Your task to perform on an android device: What's on my calendar today? Image 0: 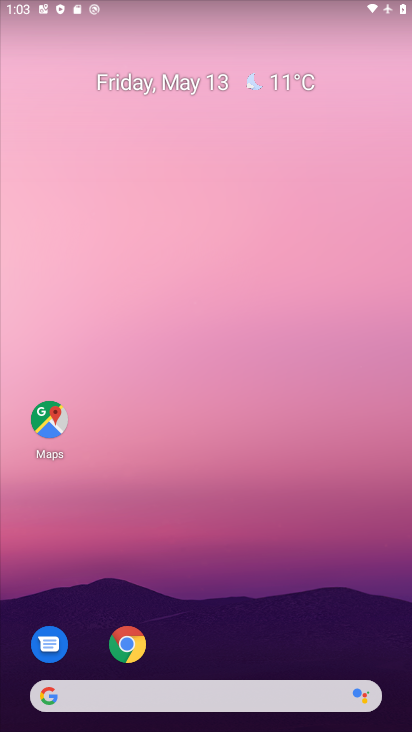
Step 0: drag from (213, 724) to (223, 178)
Your task to perform on an android device: What's on my calendar today? Image 1: 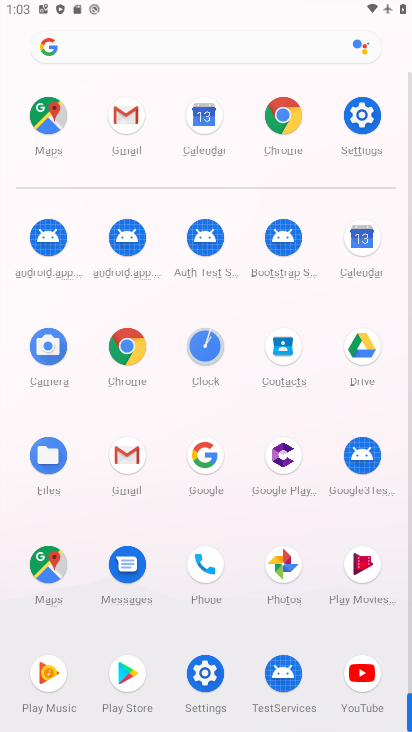
Step 1: click (358, 243)
Your task to perform on an android device: What's on my calendar today? Image 2: 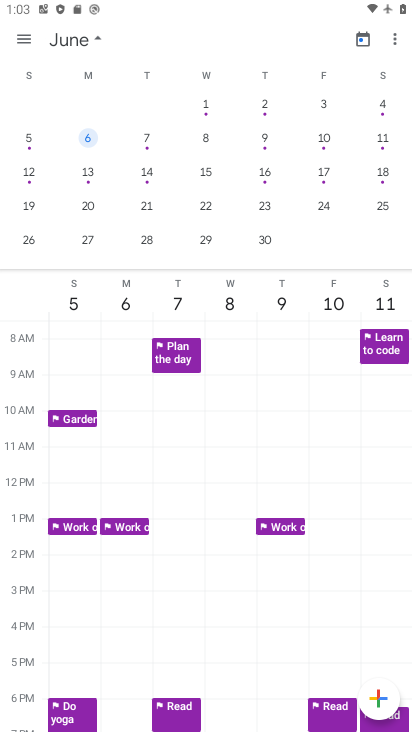
Step 2: drag from (56, 171) to (356, 165)
Your task to perform on an android device: What's on my calendar today? Image 3: 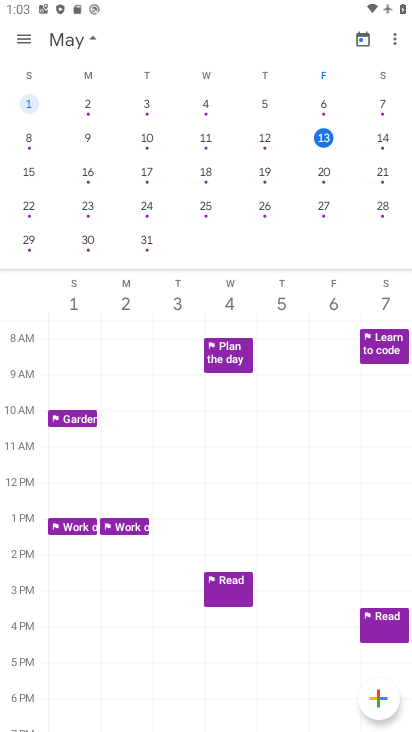
Step 3: drag from (82, 150) to (411, 166)
Your task to perform on an android device: What's on my calendar today? Image 4: 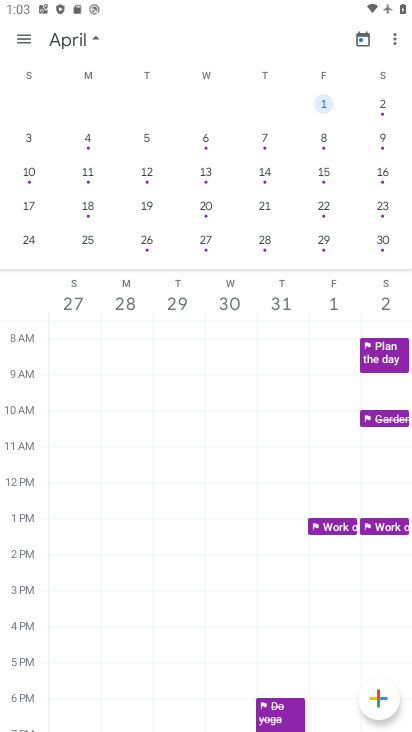
Step 4: drag from (368, 162) to (2, 150)
Your task to perform on an android device: What's on my calendar today? Image 5: 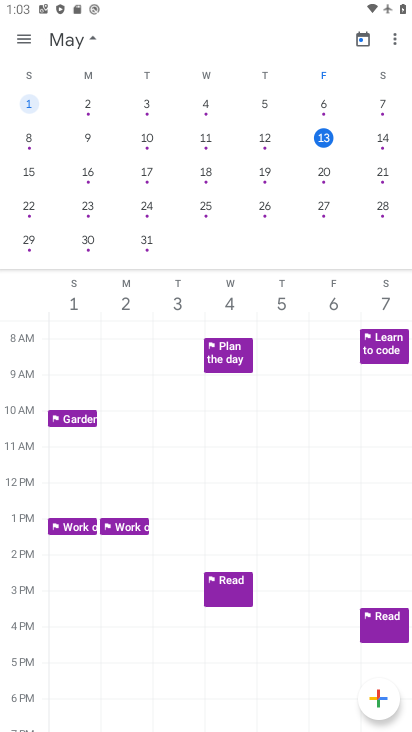
Step 5: click (324, 139)
Your task to perform on an android device: What's on my calendar today? Image 6: 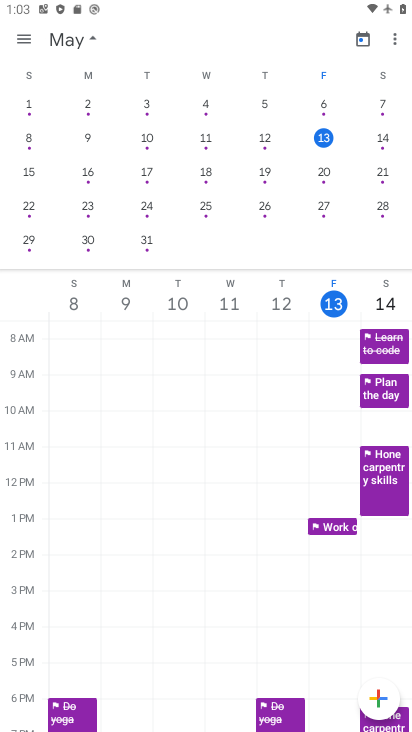
Step 6: task complete